Your task to perform on an android device: open chrome and create a bookmark for the current page Image 0: 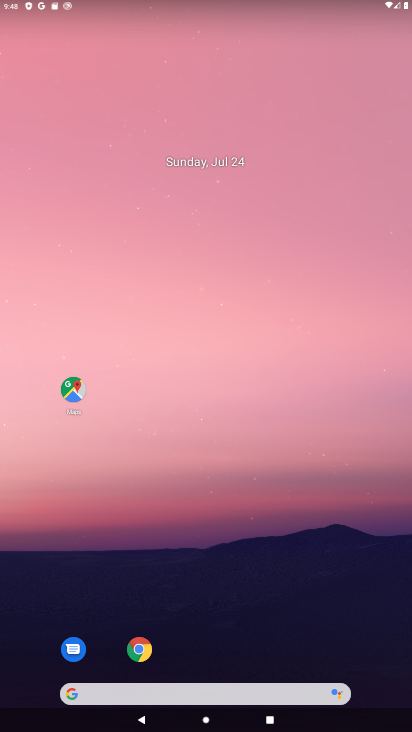
Step 0: click (136, 647)
Your task to perform on an android device: open chrome and create a bookmark for the current page Image 1: 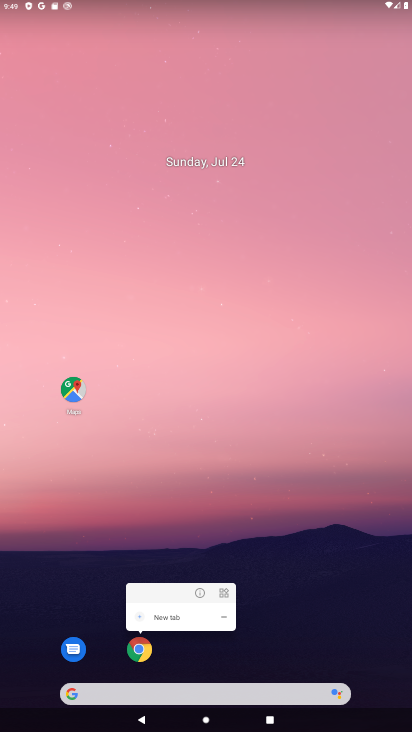
Step 1: click (136, 647)
Your task to perform on an android device: open chrome and create a bookmark for the current page Image 2: 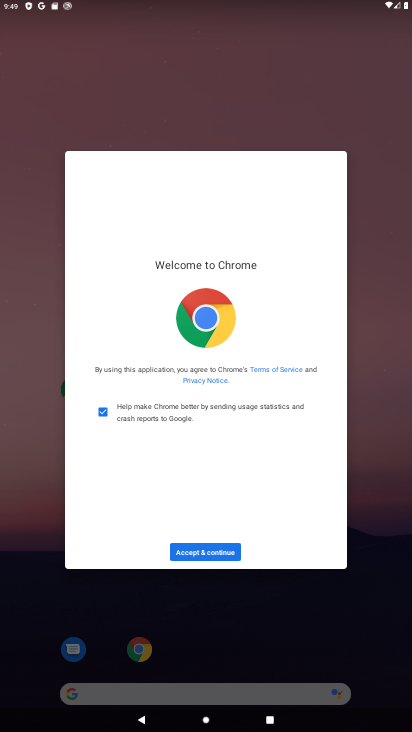
Step 2: click (224, 552)
Your task to perform on an android device: open chrome and create a bookmark for the current page Image 3: 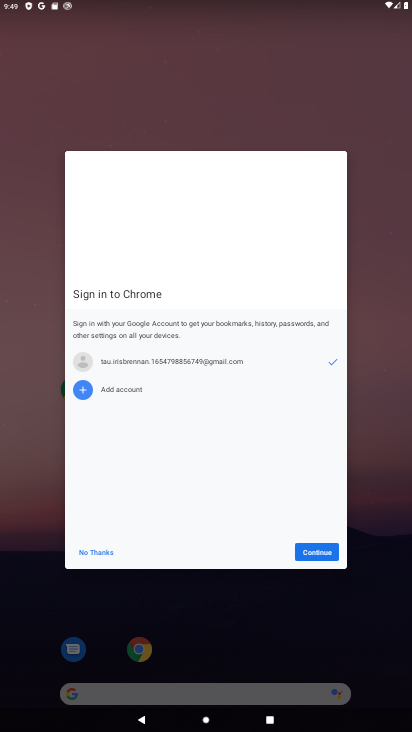
Step 3: click (327, 559)
Your task to perform on an android device: open chrome and create a bookmark for the current page Image 4: 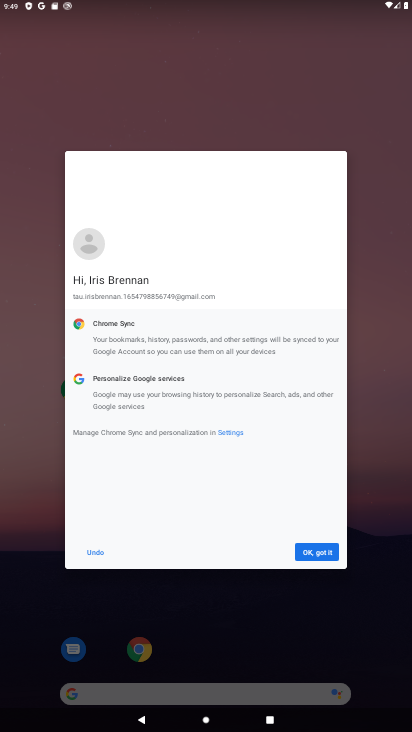
Step 4: click (313, 547)
Your task to perform on an android device: open chrome and create a bookmark for the current page Image 5: 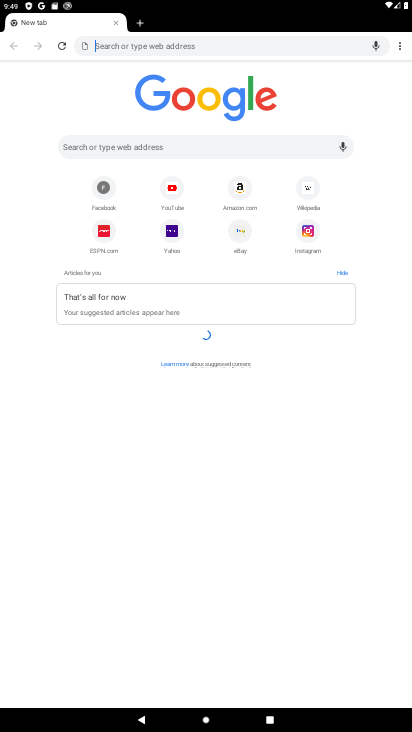
Step 5: click (400, 45)
Your task to perform on an android device: open chrome and create a bookmark for the current page Image 6: 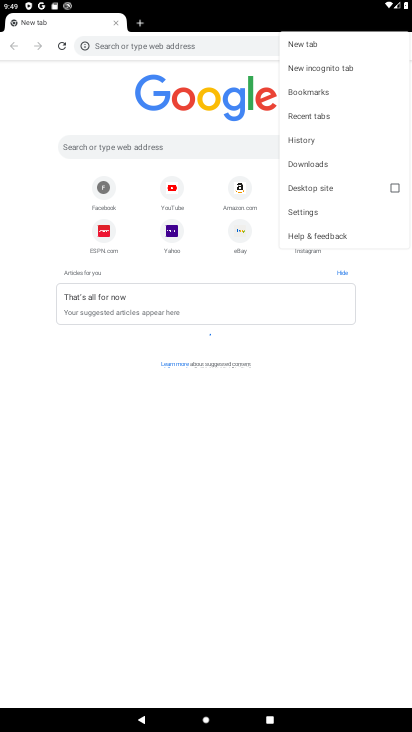
Step 6: click (87, 82)
Your task to perform on an android device: open chrome and create a bookmark for the current page Image 7: 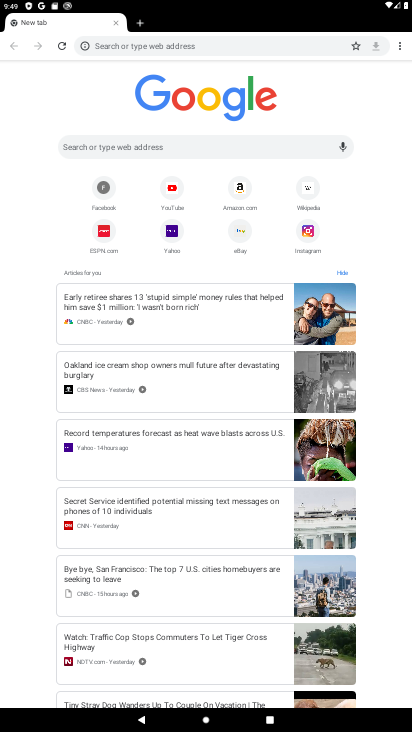
Step 7: click (355, 48)
Your task to perform on an android device: open chrome and create a bookmark for the current page Image 8: 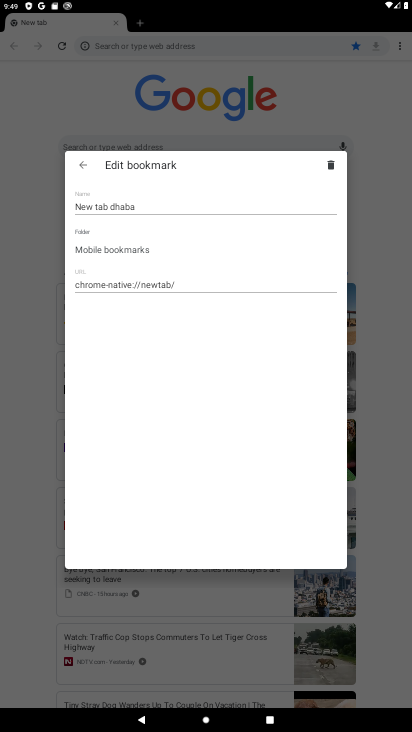
Step 8: click (382, 122)
Your task to perform on an android device: open chrome and create a bookmark for the current page Image 9: 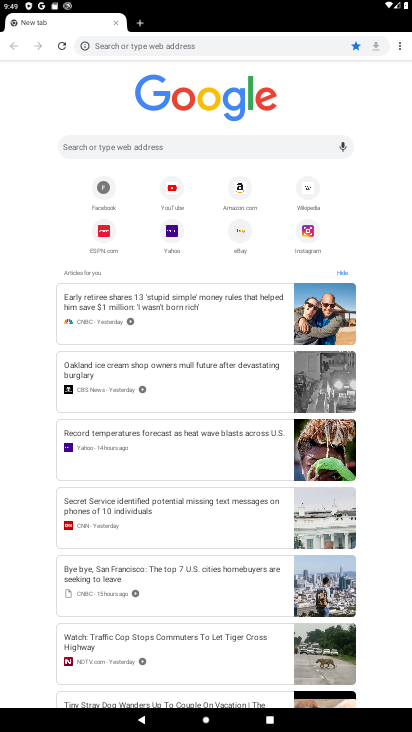
Step 9: task complete